Your task to perform on an android device: Search for hotels in Las Vegas Image 0: 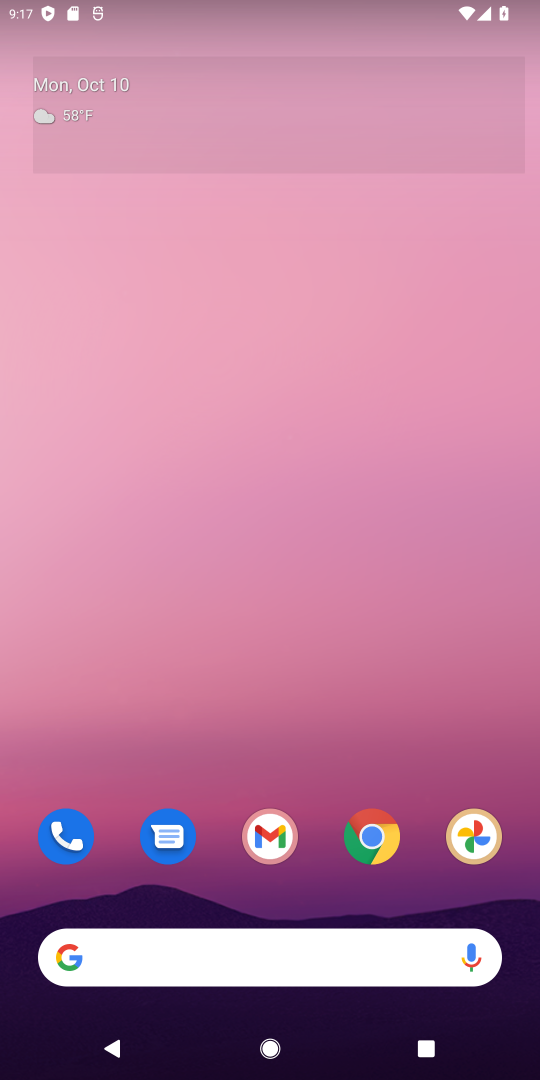
Step 0: drag from (269, 947) to (381, 282)
Your task to perform on an android device: Search for hotels in Las Vegas Image 1: 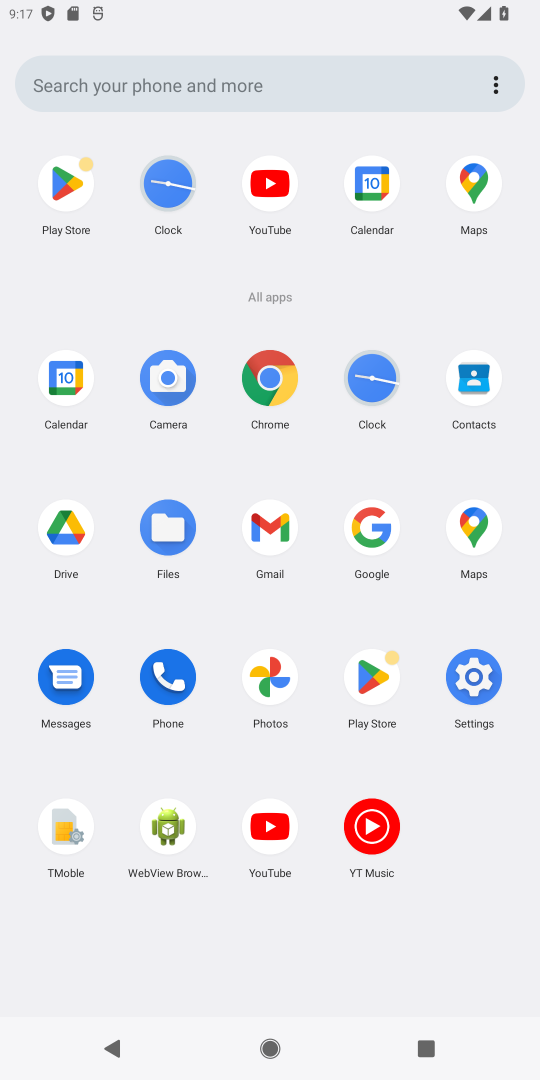
Step 1: click (375, 519)
Your task to perform on an android device: Search for hotels in Las Vegas Image 2: 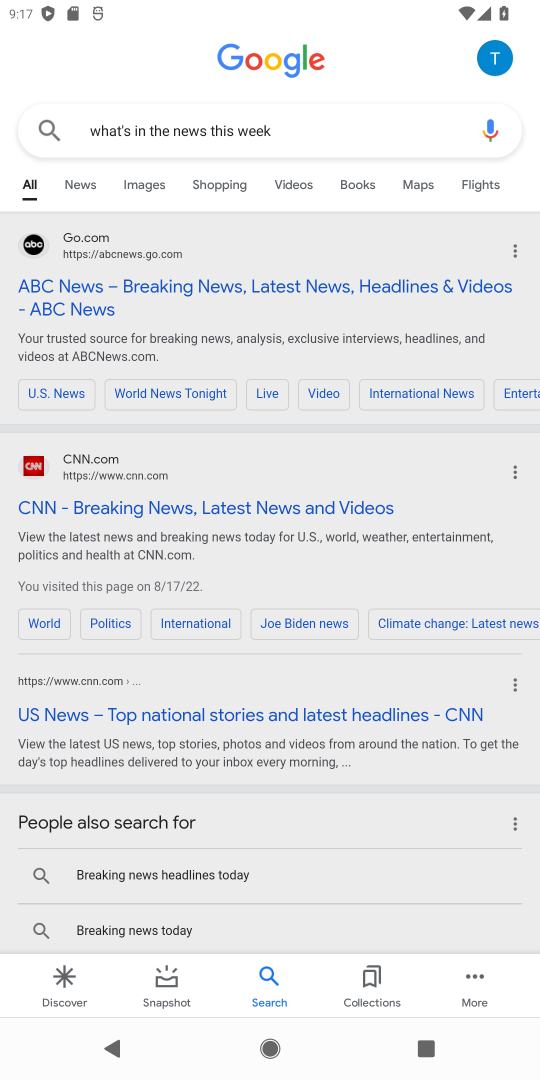
Step 2: click (252, 130)
Your task to perform on an android device: Search for hotels in Las Vegas Image 3: 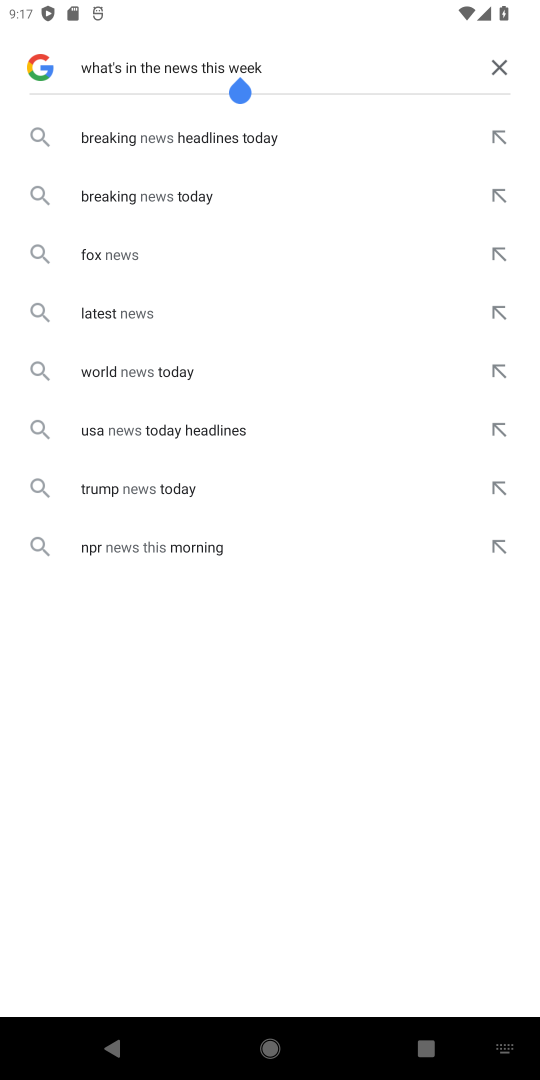
Step 3: click (497, 62)
Your task to perform on an android device: Search for hotels in Las Vegas Image 4: 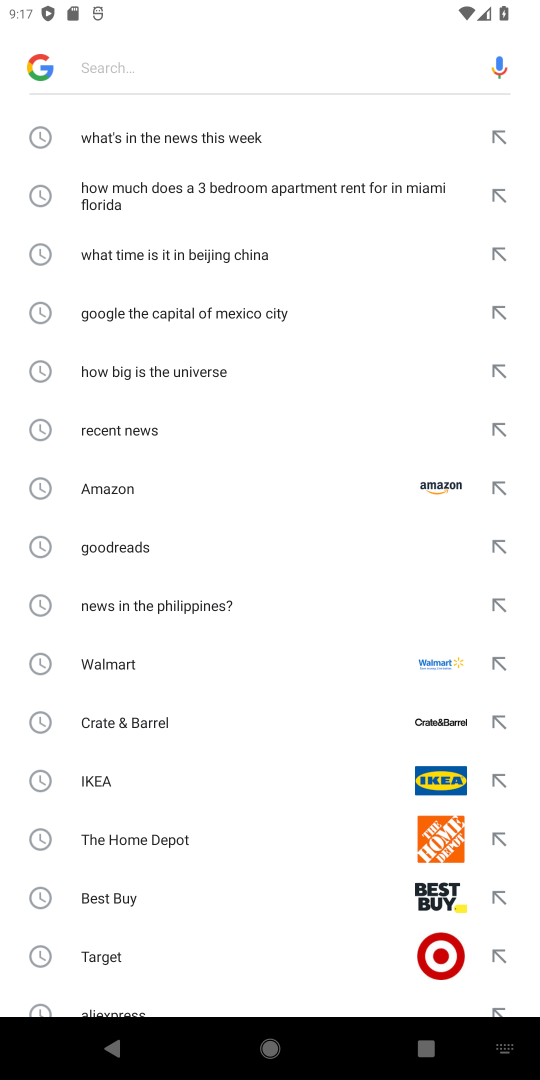
Step 4: type "Search for hotels in Las Vegas"
Your task to perform on an android device: Search for hotels in Las Vegas Image 5: 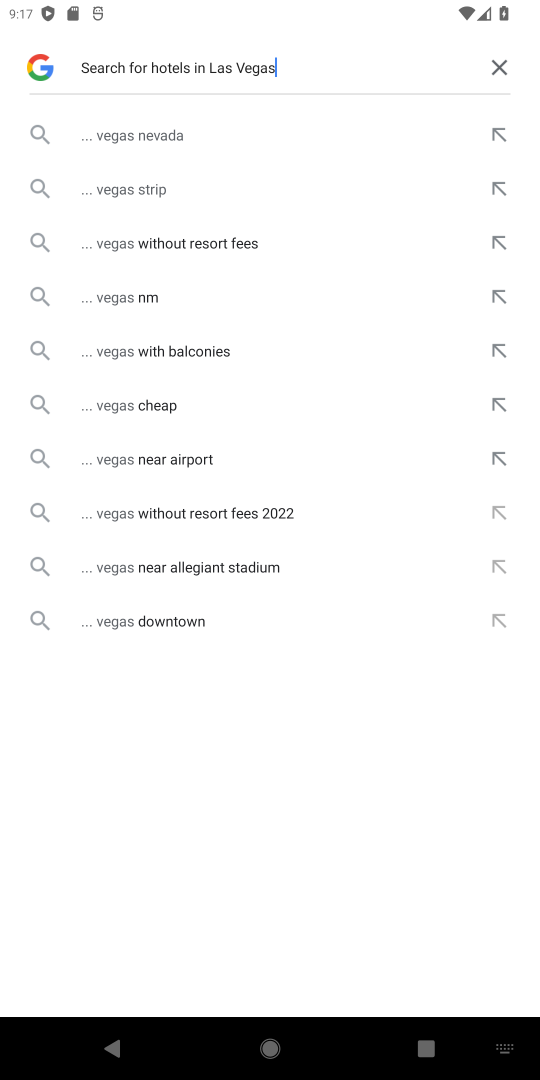
Step 5: click (172, 124)
Your task to perform on an android device: Search for hotels in Las Vegas Image 6: 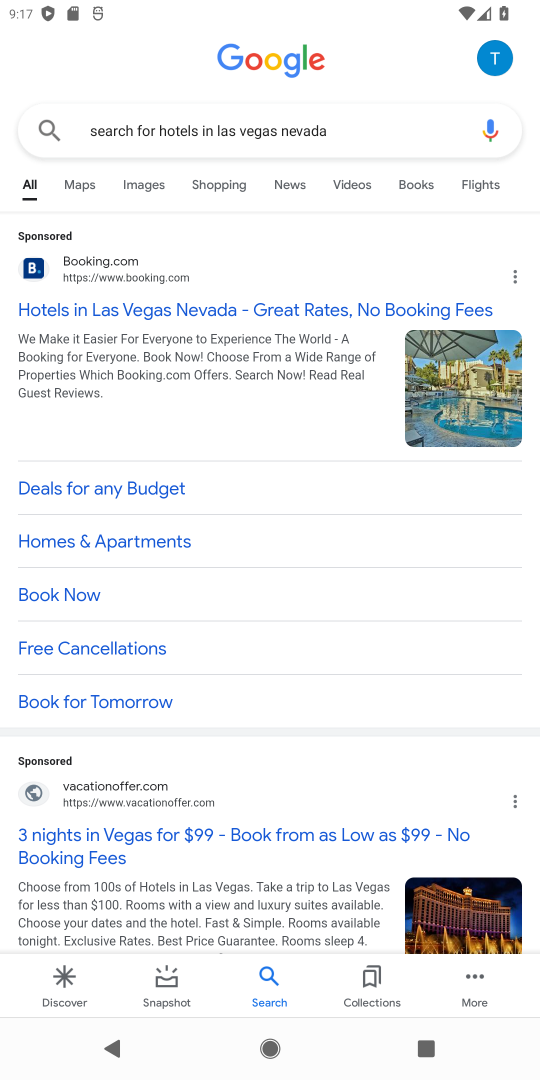
Step 6: click (197, 308)
Your task to perform on an android device: Search for hotels in Las Vegas Image 7: 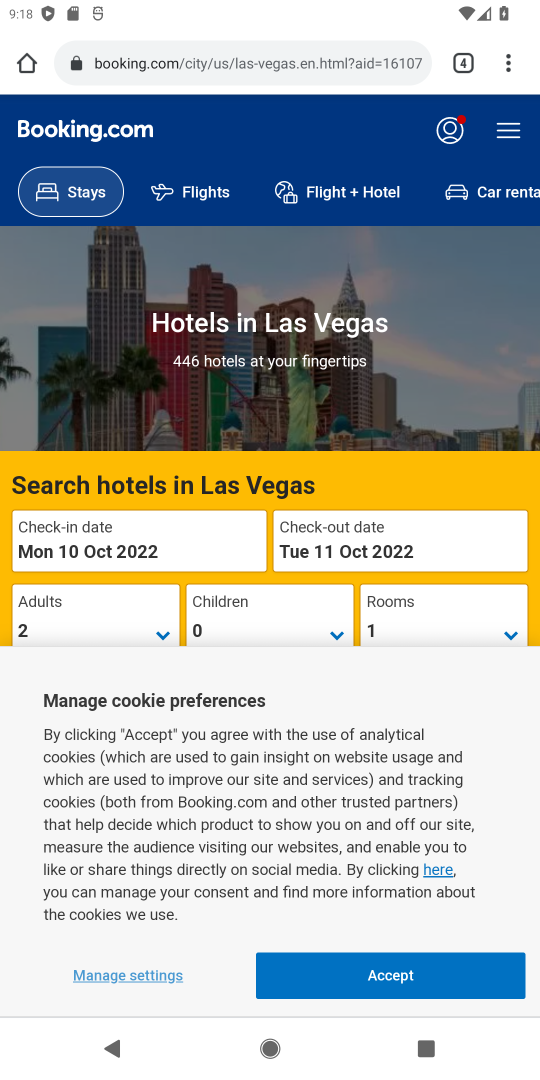
Step 7: task complete